Your task to perform on an android device: change timer sound Image 0: 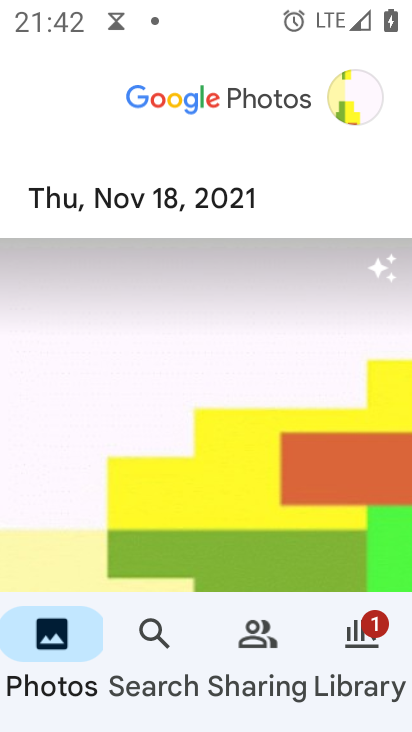
Step 0: press home button
Your task to perform on an android device: change timer sound Image 1: 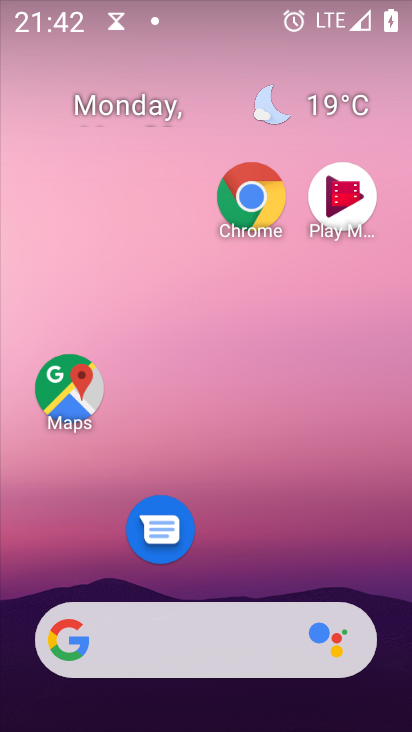
Step 1: drag from (250, 572) to (183, 243)
Your task to perform on an android device: change timer sound Image 2: 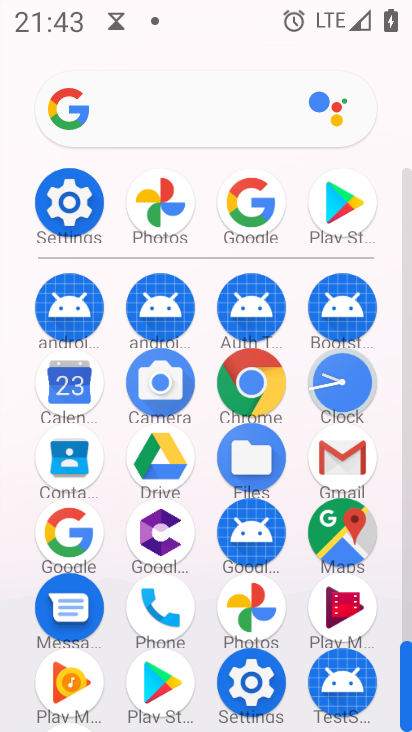
Step 2: click (74, 210)
Your task to perform on an android device: change timer sound Image 3: 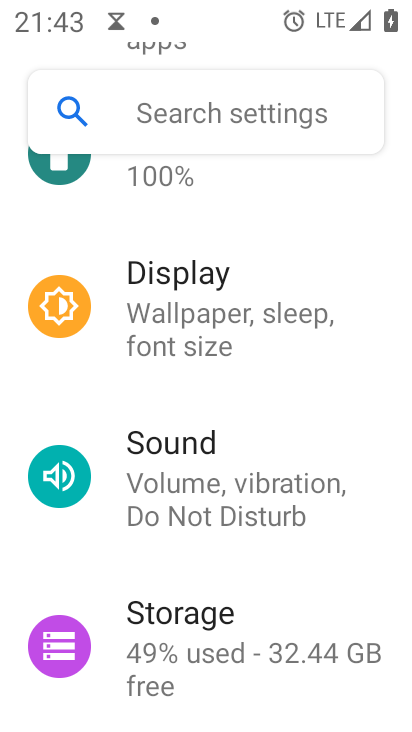
Step 3: press back button
Your task to perform on an android device: change timer sound Image 4: 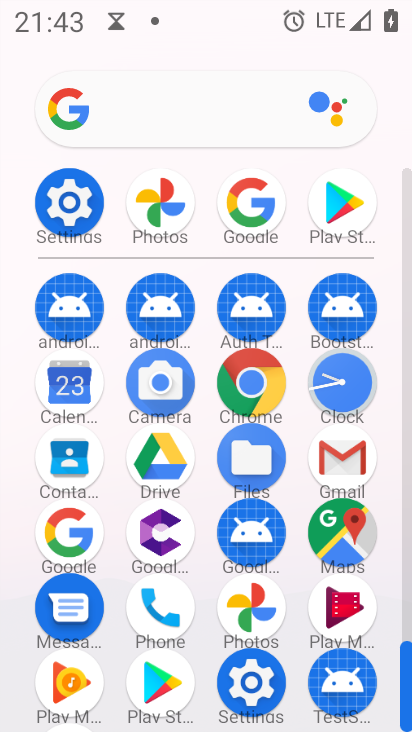
Step 4: click (340, 389)
Your task to perform on an android device: change timer sound Image 5: 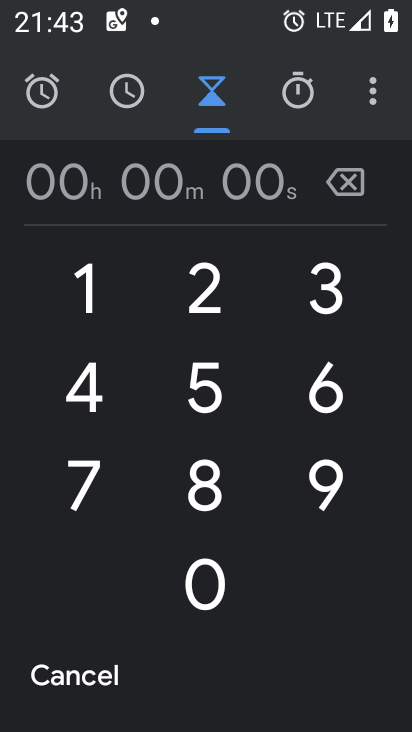
Step 5: click (377, 101)
Your task to perform on an android device: change timer sound Image 6: 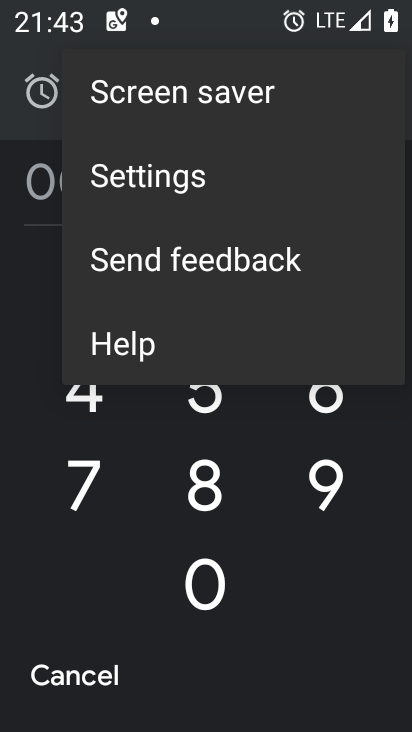
Step 6: click (230, 173)
Your task to perform on an android device: change timer sound Image 7: 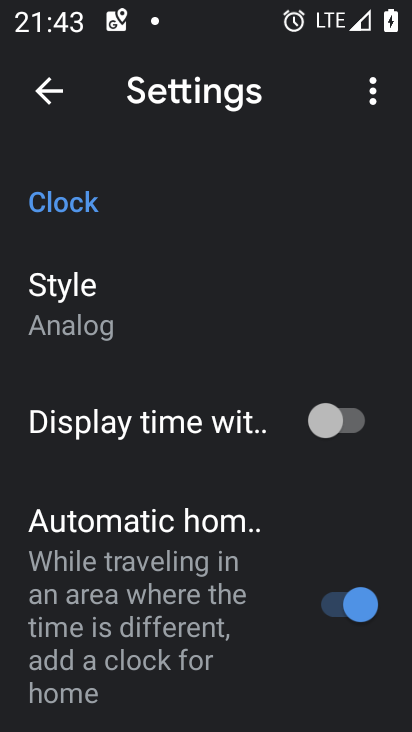
Step 7: drag from (199, 634) to (189, 282)
Your task to perform on an android device: change timer sound Image 8: 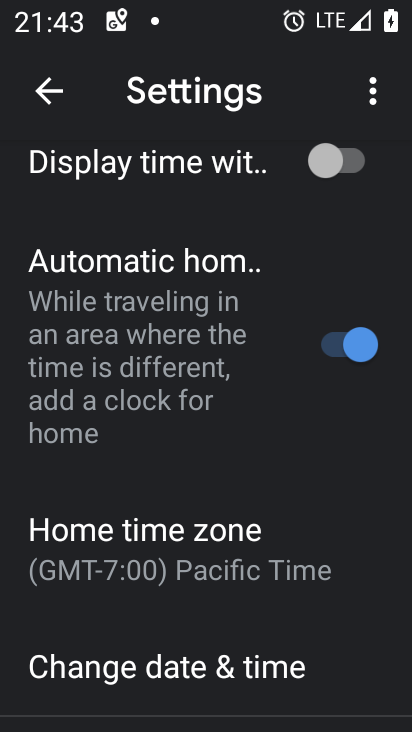
Step 8: drag from (196, 630) to (174, 377)
Your task to perform on an android device: change timer sound Image 9: 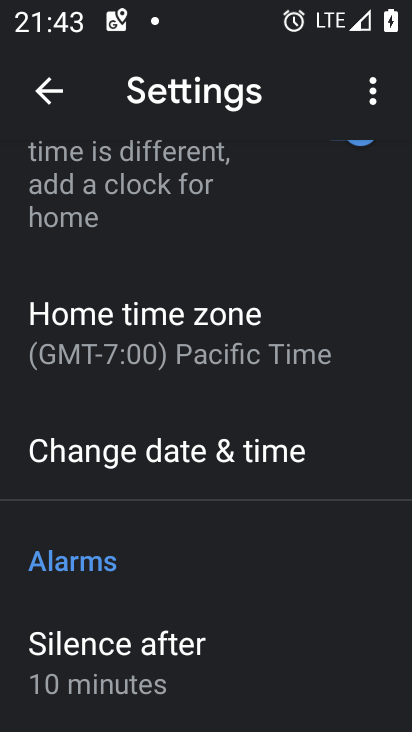
Step 9: drag from (165, 703) to (149, 612)
Your task to perform on an android device: change timer sound Image 10: 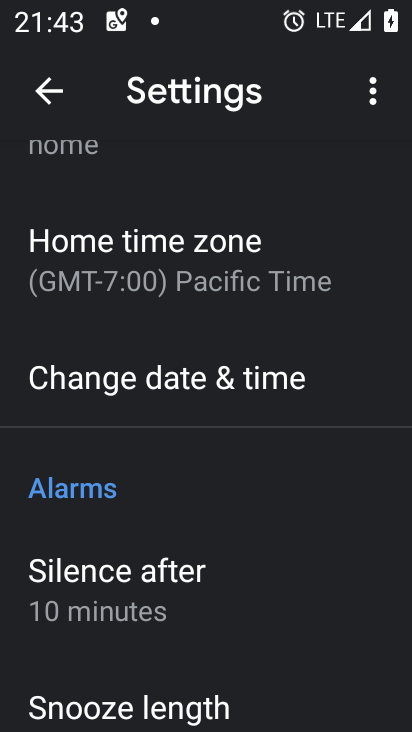
Step 10: click (157, 563)
Your task to perform on an android device: change timer sound Image 11: 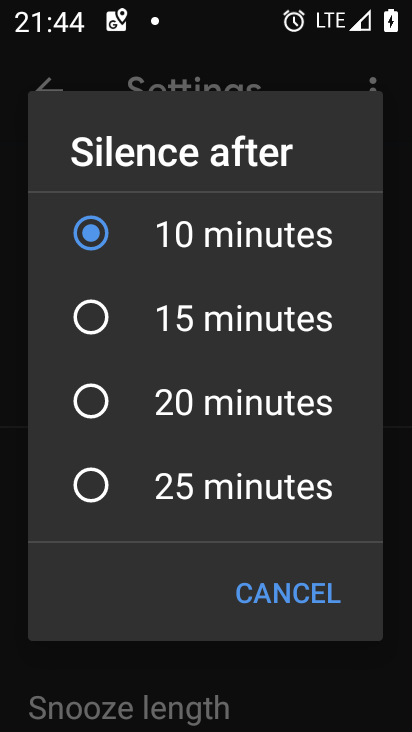
Step 11: click (81, 506)
Your task to perform on an android device: change timer sound Image 12: 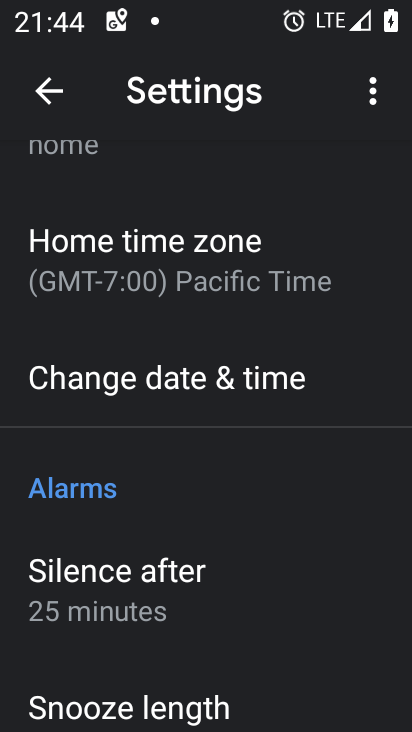
Step 12: task complete